Your task to perform on an android device: Open Youtube and go to the subscriptions tab Image 0: 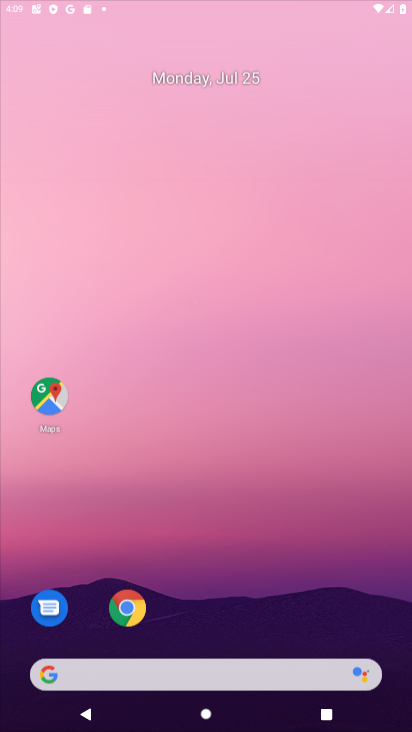
Step 0: press home button
Your task to perform on an android device: Open Youtube and go to the subscriptions tab Image 1: 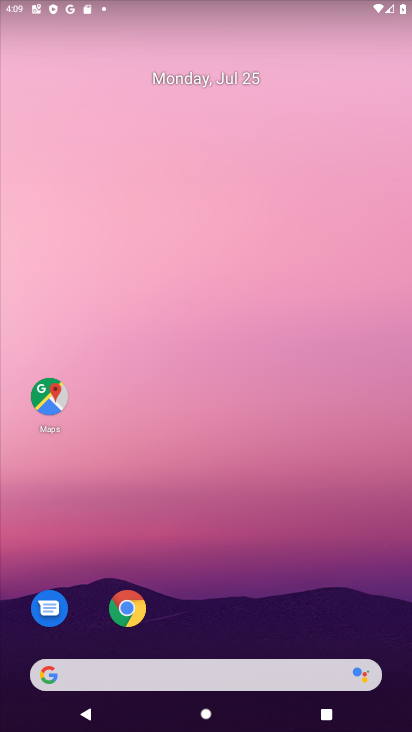
Step 1: drag from (219, 637) to (220, 24)
Your task to perform on an android device: Open Youtube and go to the subscriptions tab Image 2: 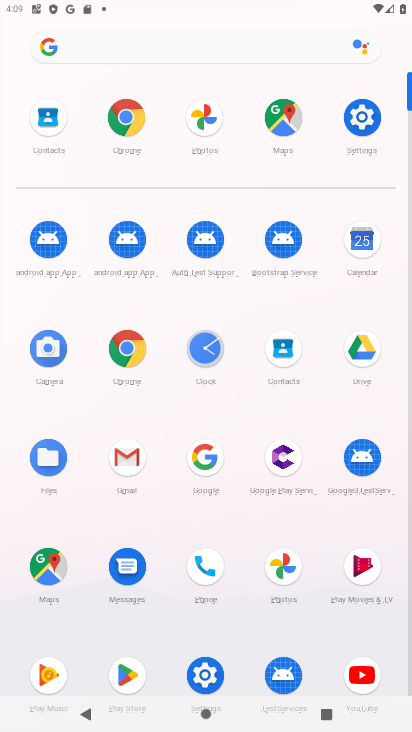
Step 2: click (362, 670)
Your task to perform on an android device: Open Youtube and go to the subscriptions tab Image 3: 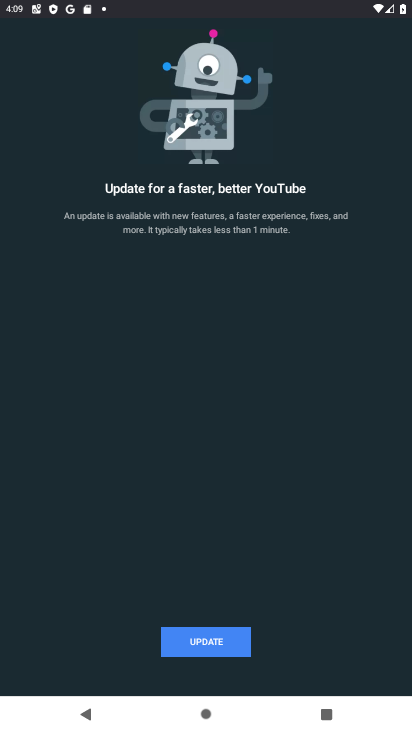
Step 3: click (208, 642)
Your task to perform on an android device: Open Youtube and go to the subscriptions tab Image 4: 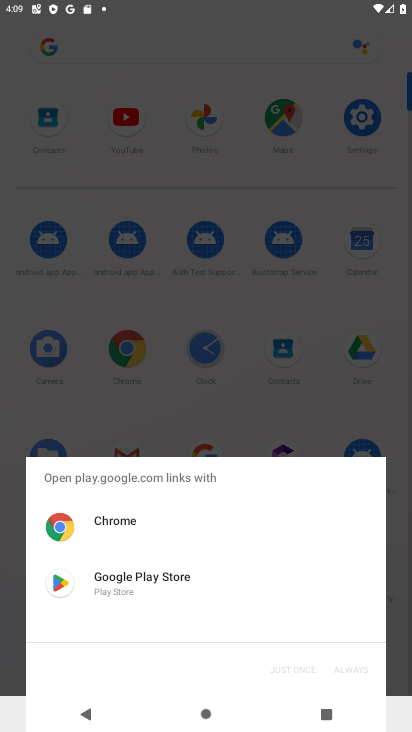
Step 4: click (98, 583)
Your task to perform on an android device: Open Youtube and go to the subscriptions tab Image 5: 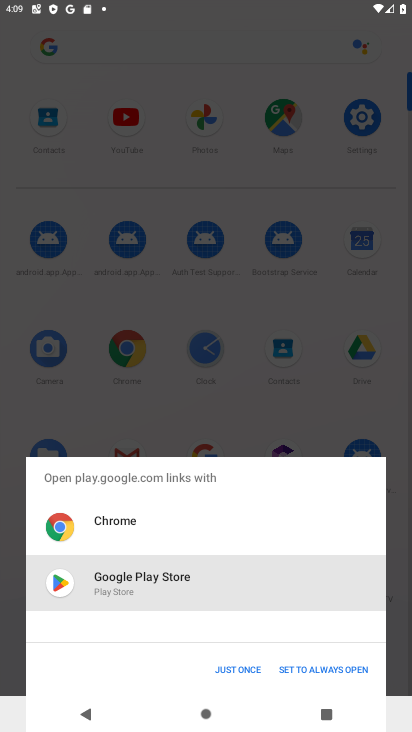
Step 5: click (228, 671)
Your task to perform on an android device: Open Youtube and go to the subscriptions tab Image 6: 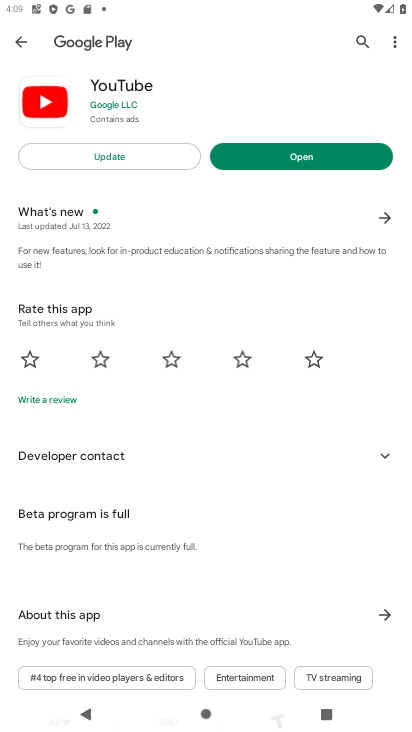
Step 6: click (106, 159)
Your task to perform on an android device: Open Youtube and go to the subscriptions tab Image 7: 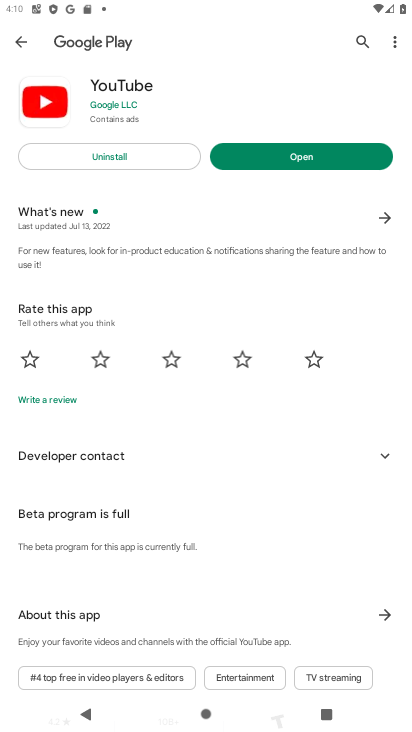
Step 7: click (297, 162)
Your task to perform on an android device: Open Youtube and go to the subscriptions tab Image 8: 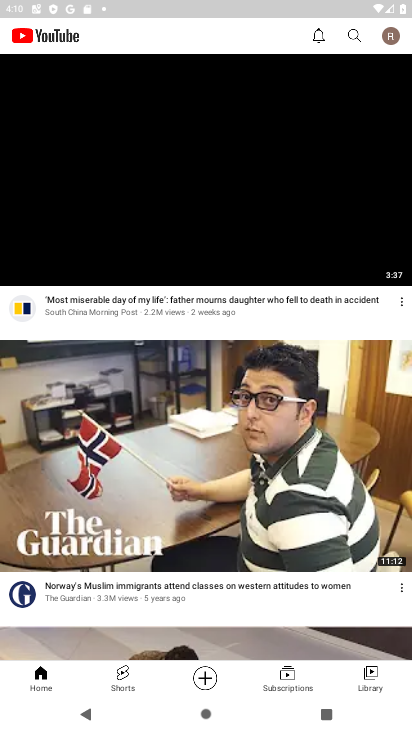
Step 8: click (285, 669)
Your task to perform on an android device: Open Youtube and go to the subscriptions tab Image 9: 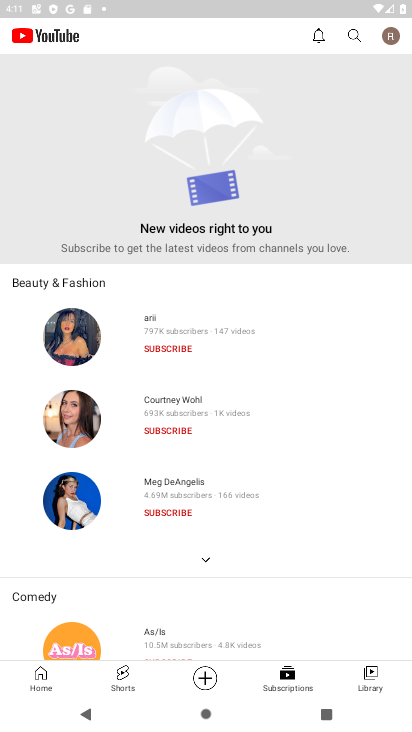
Step 9: task complete